Your task to perform on an android device: What is the recent news? Image 0: 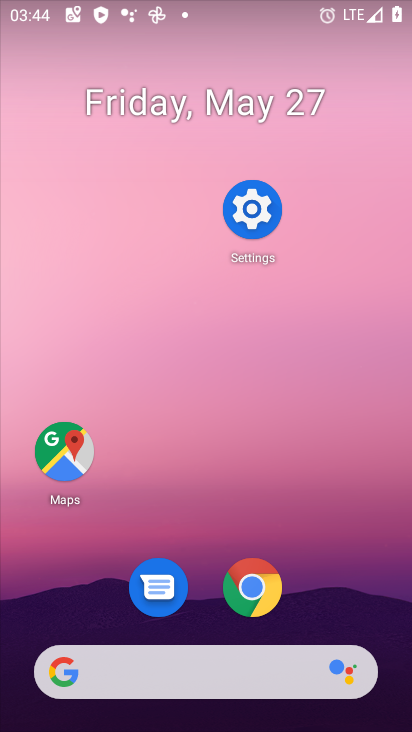
Step 0: press home button
Your task to perform on an android device: What is the recent news? Image 1: 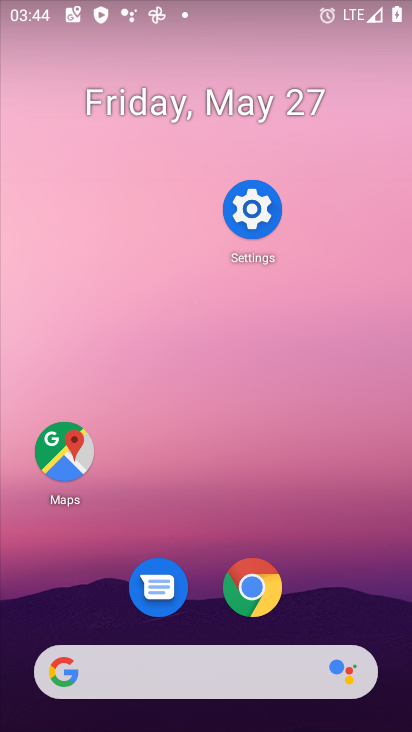
Step 1: press home button
Your task to perform on an android device: What is the recent news? Image 2: 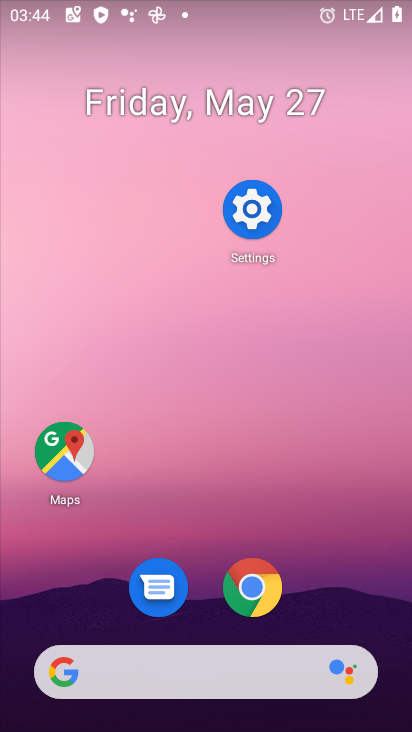
Step 2: click (15, 682)
Your task to perform on an android device: What is the recent news? Image 3: 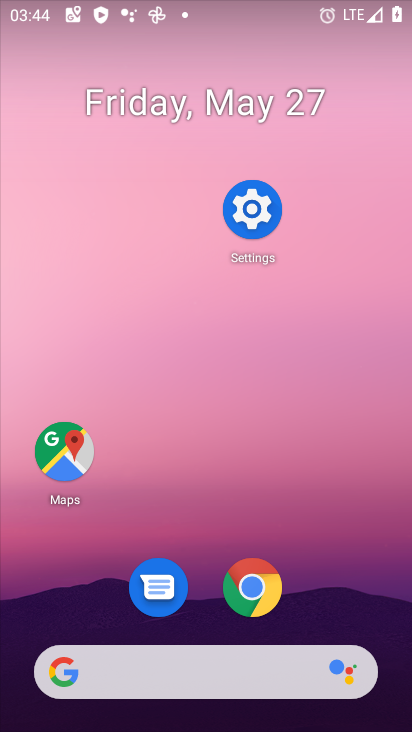
Step 3: click (61, 670)
Your task to perform on an android device: What is the recent news? Image 4: 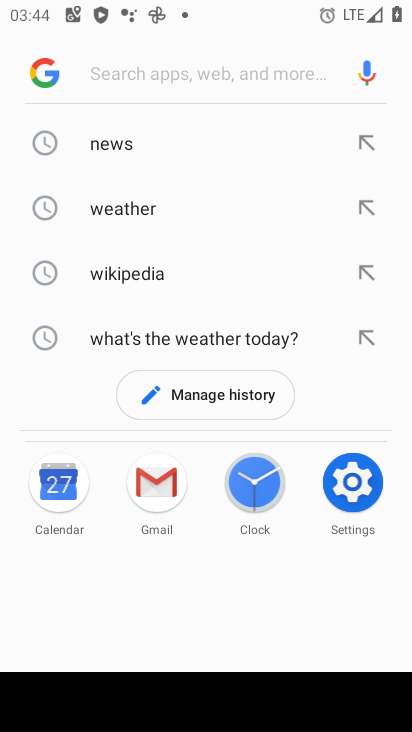
Step 4: type "recent news"
Your task to perform on an android device: What is the recent news? Image 5: 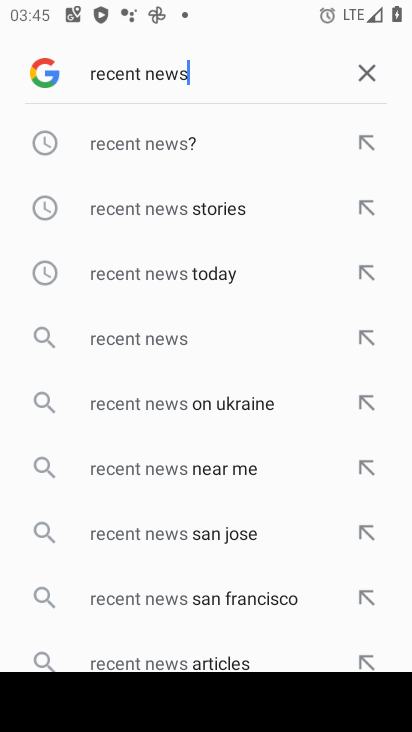
Step 5: click (153, 339)
Your task to perform on an android device: What is the recent news? Image 6: 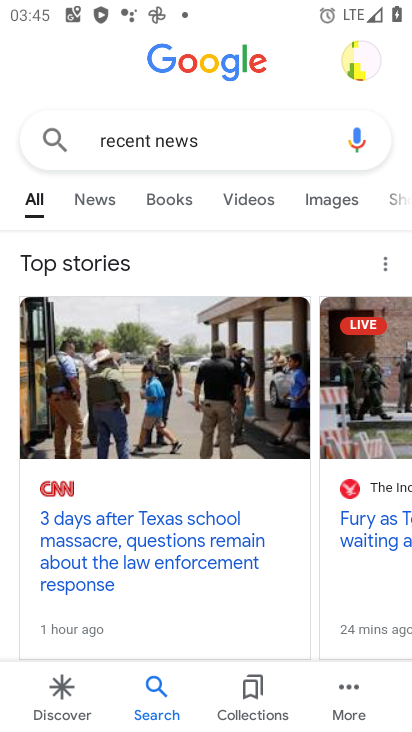
Step 6: task complete